Your task to perform on an android device: Open Youtube and go to "Your channel" Image 0: 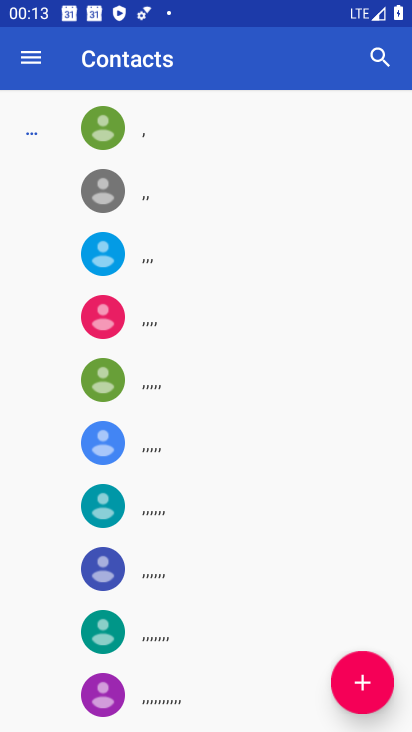
Step 0: press home button
Your task to perform on an android device: Open Youtube and go to "Your channel" Image 1: 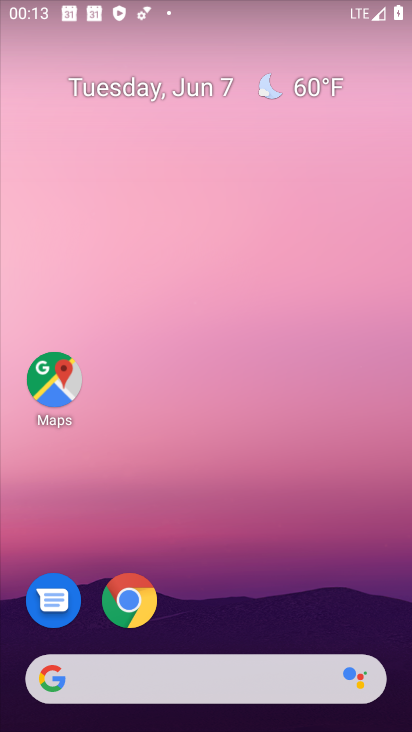
Step 1: drag from (206, 725) to (204, 217)
Your task to perform on an android device: Open Youtube and go to "Your channel" Image 2: 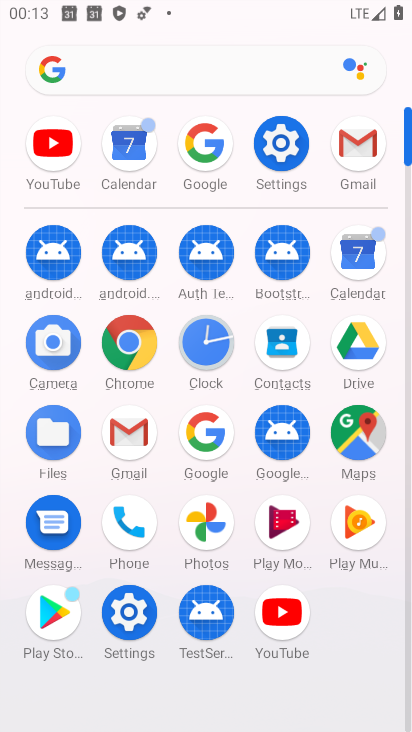
Step 2: click (285, 612)
Your task to perform on an android device: Open Youtube and go to "Your channel" Image 3: 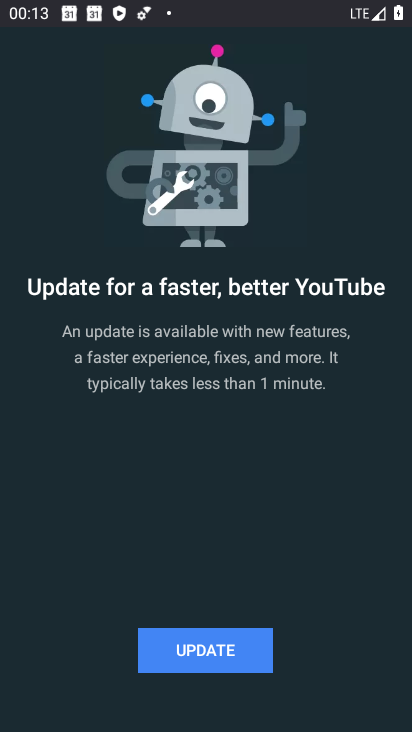
Step 3: task complete